Your task to perform on an android device: refresh tabs in the chrome app Image 0: 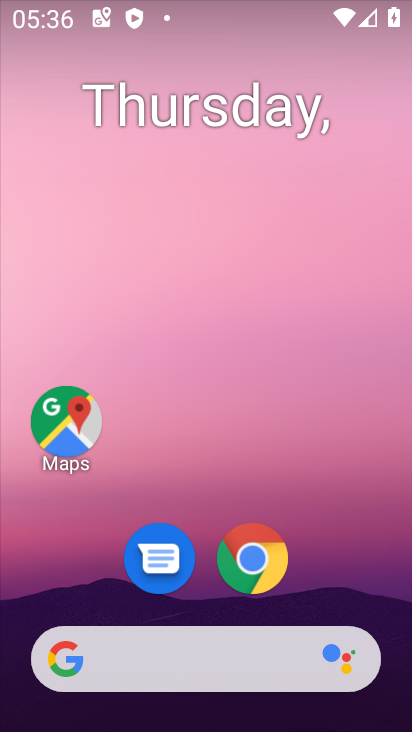
Step 0: drag from (308, 607) to (308, 123)
Your task to perform on an android device: refresh tabs in the chrome app Image 1: 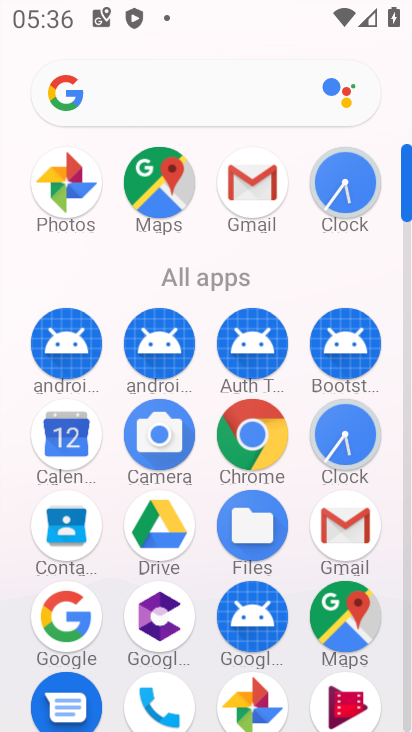
Step 1: click (262, 475)
Your task to perform on an android device: refresh tabs in the chrome app Image 2: 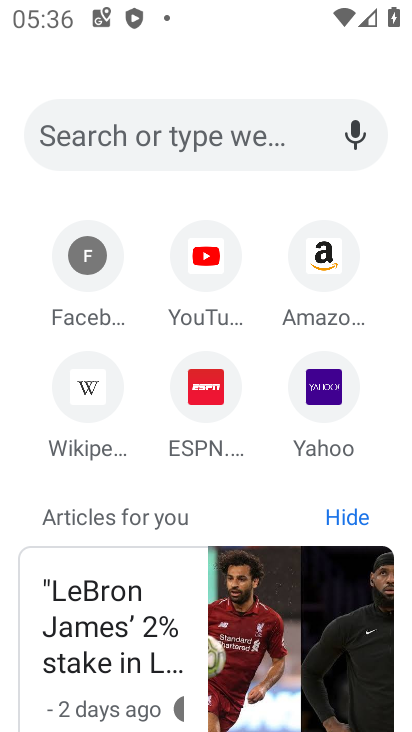
Step 2: drag from (261, 104) to (213, 578)
Your task to perform on an android device: refresh tabs in the chrome app Image 3: 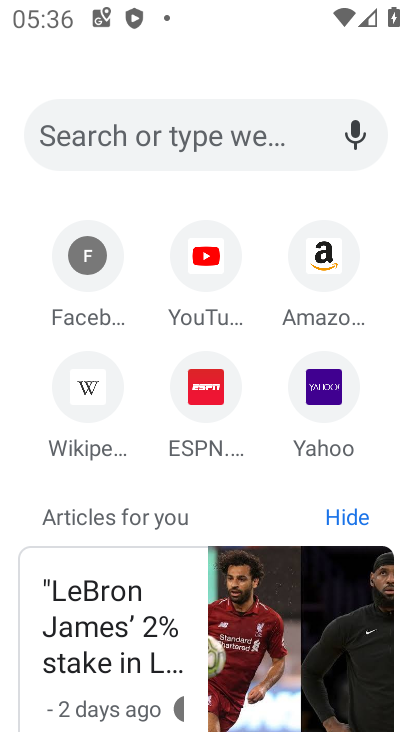
Step 3: drag from (240, 102) to (199, 415)
Your task to perform on an android device: refresh tabs in the chrome app Image 4: 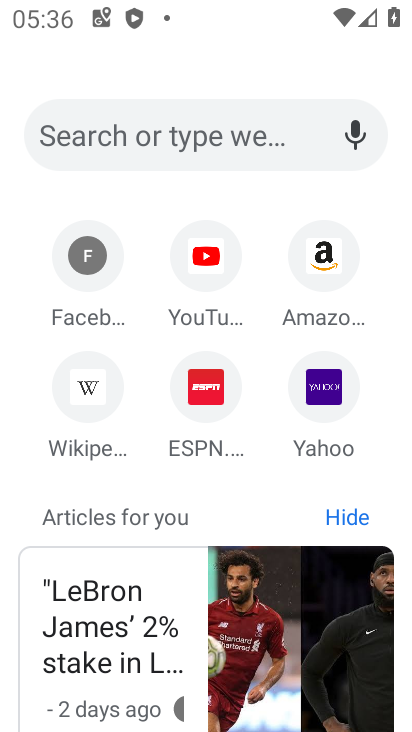
Step 4: drag from (214, 37) to (219, 537)
Your task to perform on an android device: refresh tabs in the chrome app Image 5: 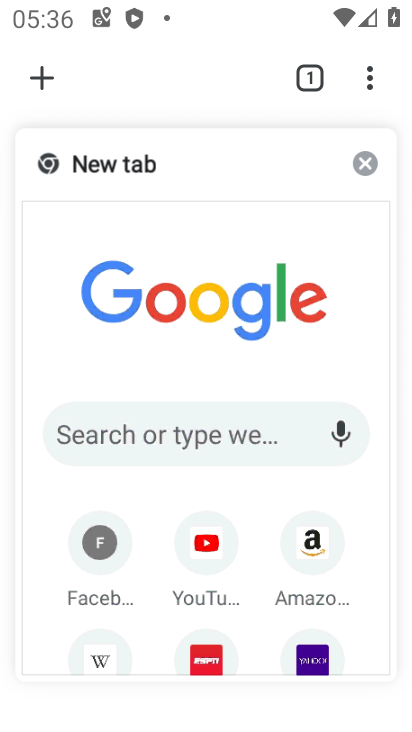
Step 5: drag from (270, 109) to (268, 351)
Your task to perform on an android device: refresh tabs in the chrome app Image 6: 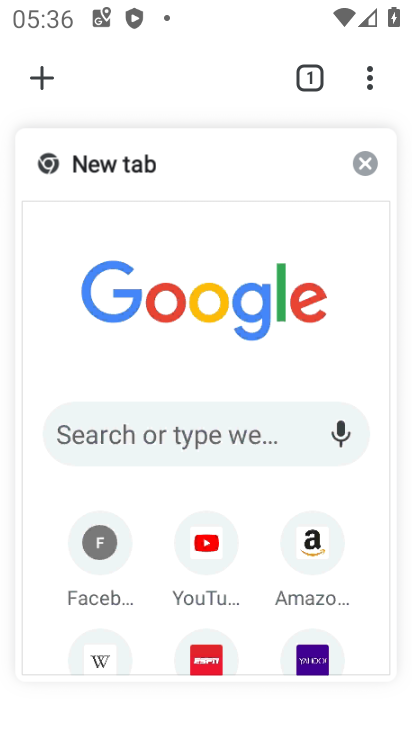
Step 6: click (199, 145)
Your task to perform on an android device: refresh tabs in the chrome app Image 7: 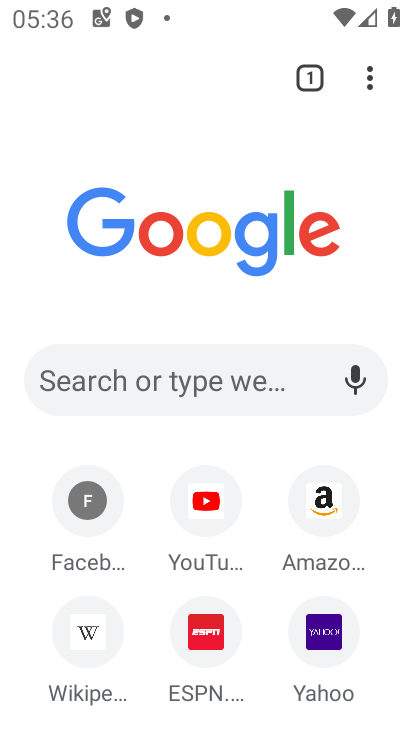
Step 7: click (367, 81)
Your task to perform on an android device: refresh tabs in the chrome app Image 8: 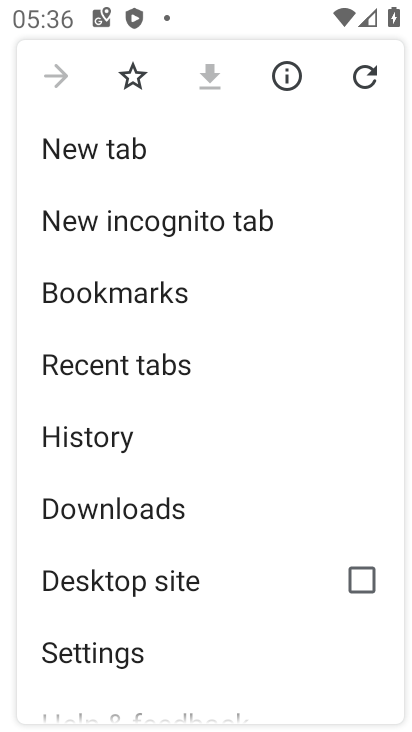
Step 8: click (368, 76)
Your task to perform on an android device: refresh tabs in the chrome app Image 9: 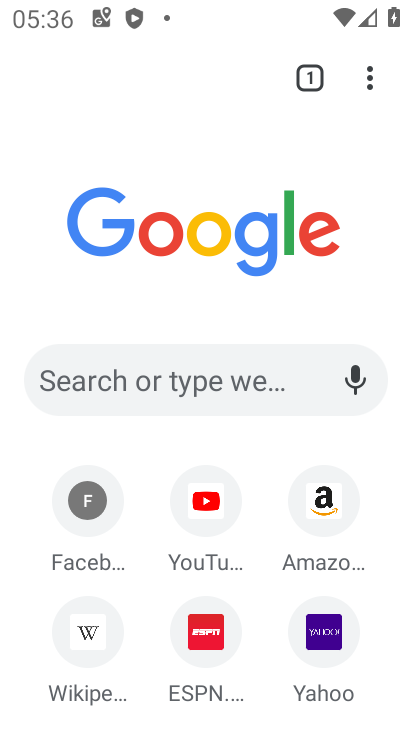
Step 9: task complete